Your task to perform on an android device: add a contact Image 0: 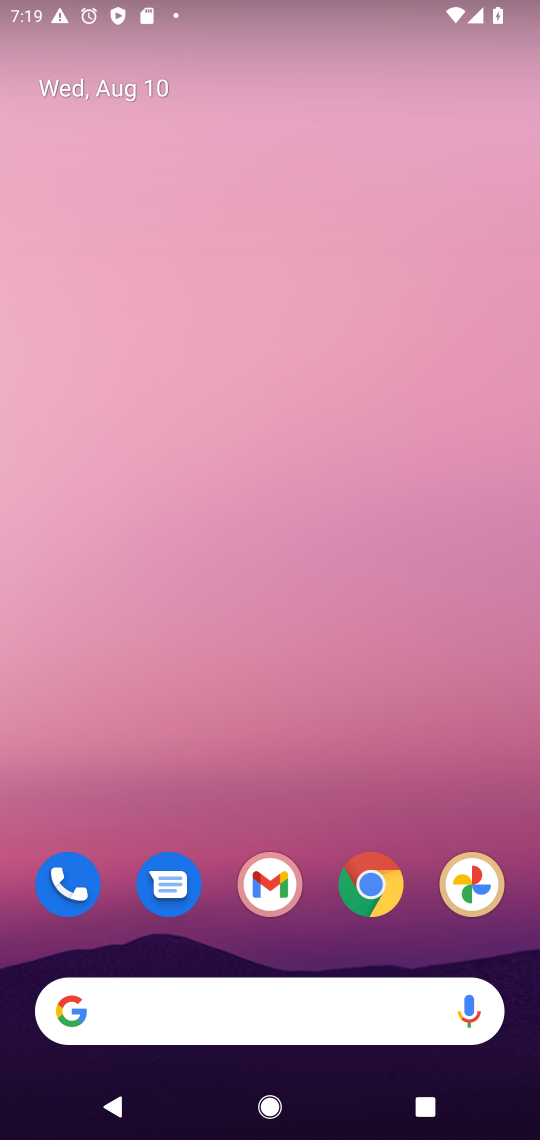
Step 0: drag from (76, 839) to (256, 294)
Your task to perform on an android device: add a contact Image 1: 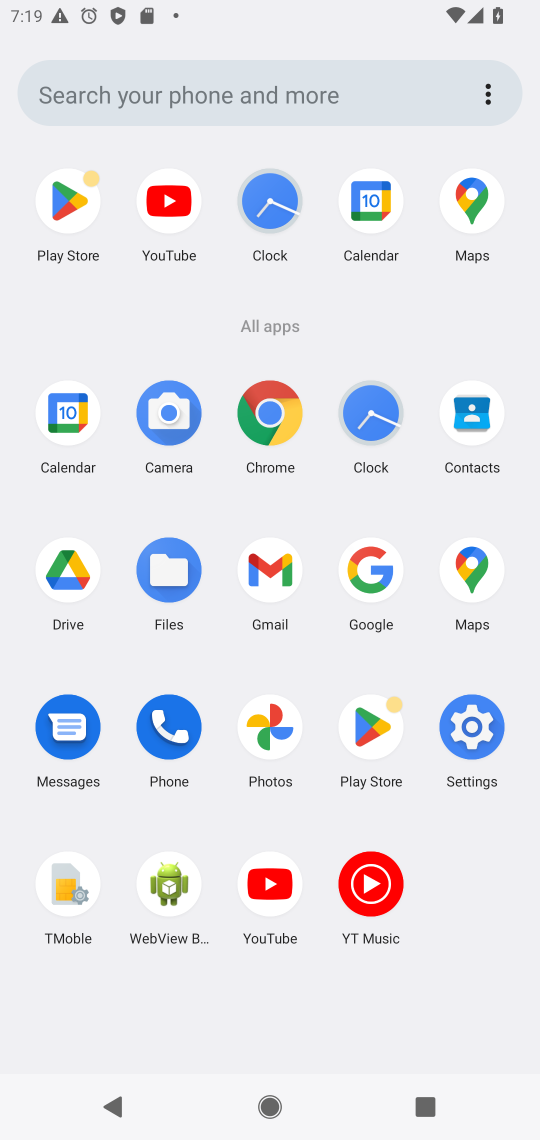
Step 1: click (460, 402)
Your task to perform on an android device: add a contact Image 2: 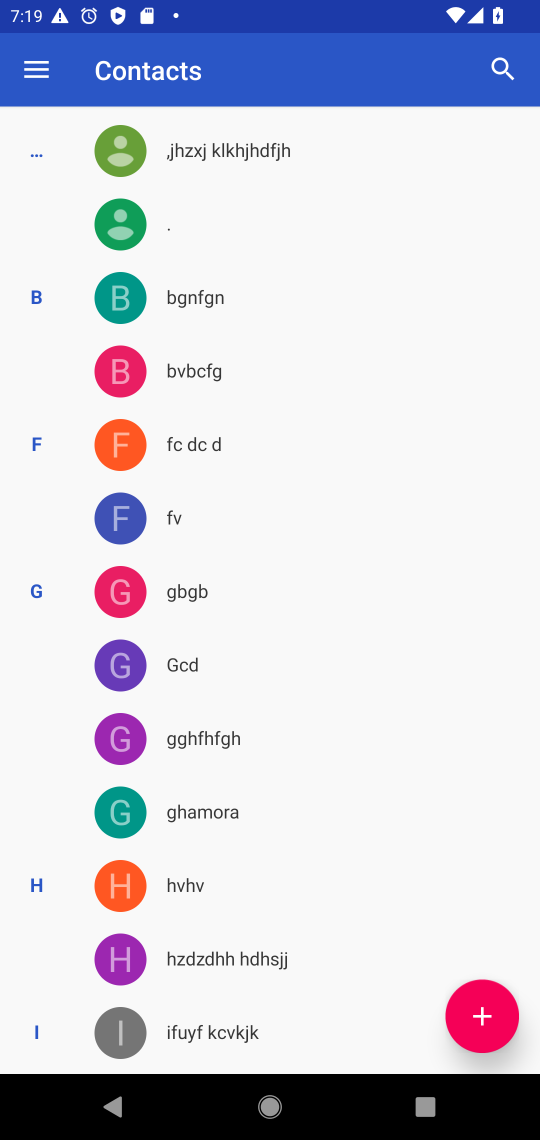
Step 2: click (482, 1031)
Your task to perform on an android device: add a contact Image 3: 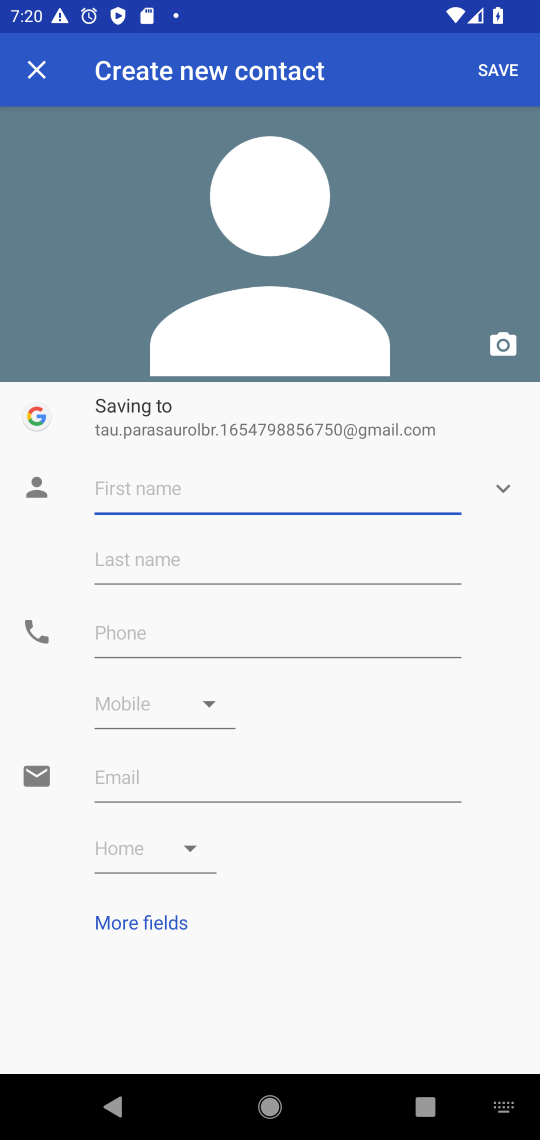
Step 3: type "ehthtrh"
Your task to perform on an android device: add a contact Image 4: 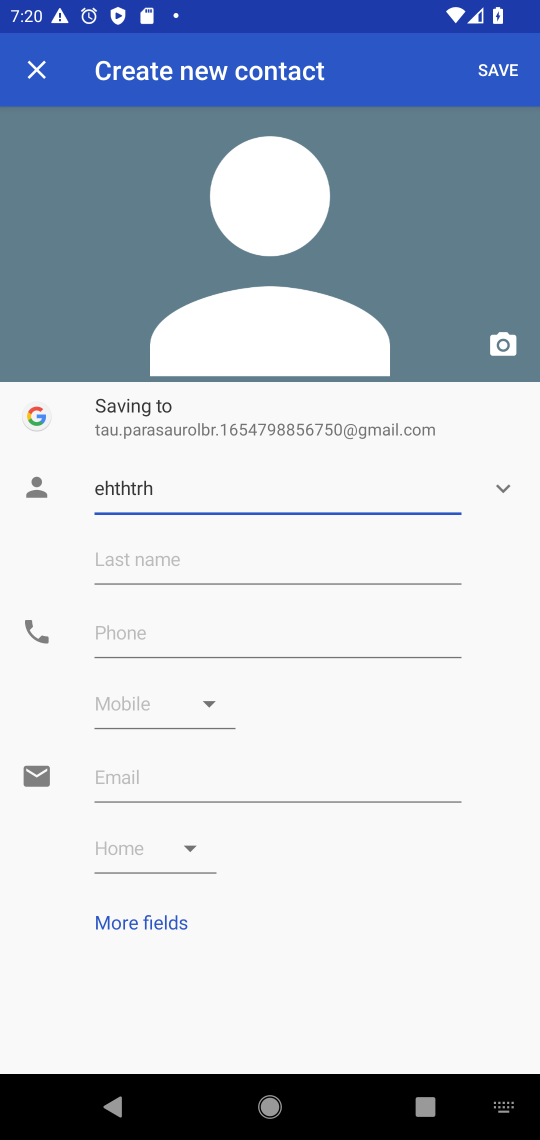
Step 4: click (496, 70)
Your task to perform on an android device: add a contact Image 5: 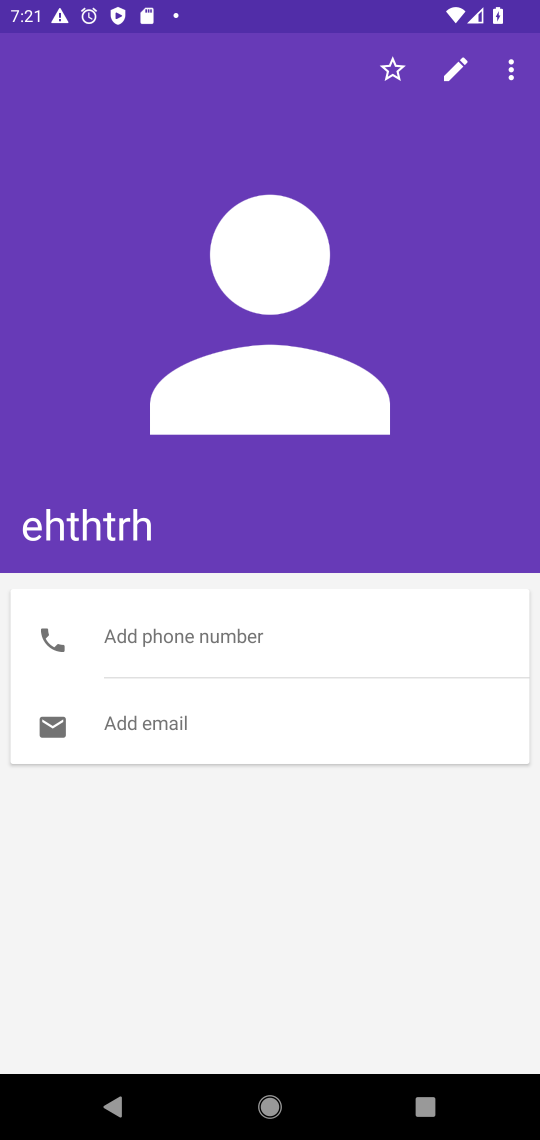
Step 5: task complete